Your task to perform on an android device: toggle wifi Image 0: 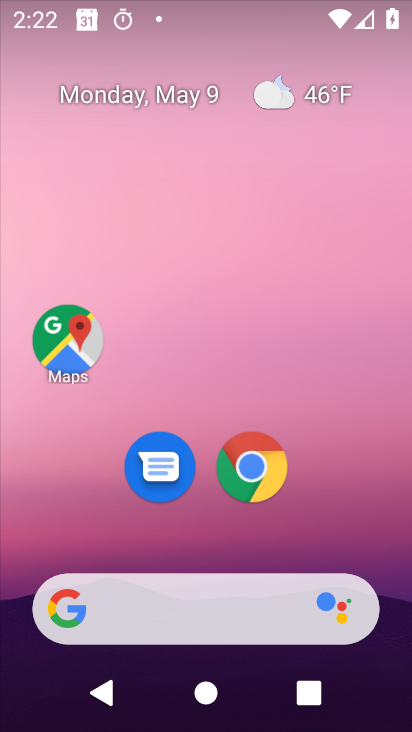
Step 0: drag from (346, 444) to (264, 84)
Your task to perform on an android device: toggle wifi Image 1: 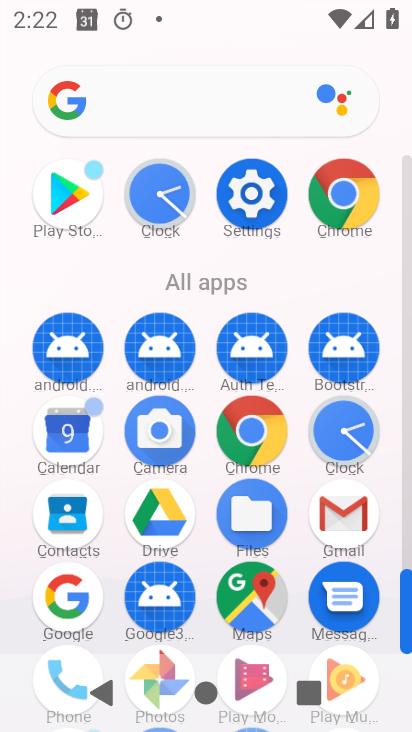
Step 1: click (256, 184)
Your task to perform on an android device: toggle wifi Image 2: 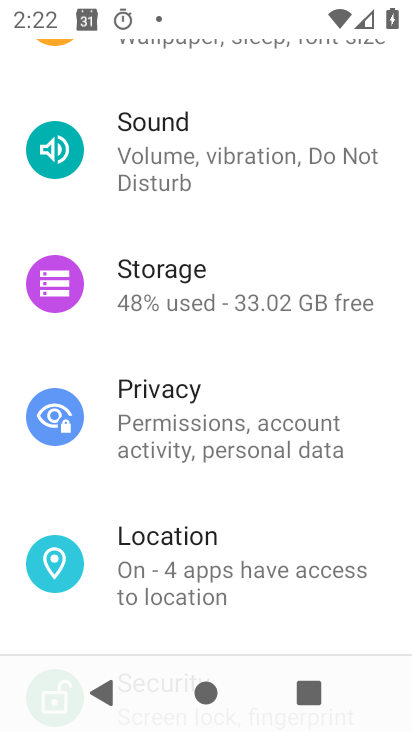
Step 2: drag from (250, 122) to (289, 554)
Your task to perform on an android device: toggle wifi Image 3: 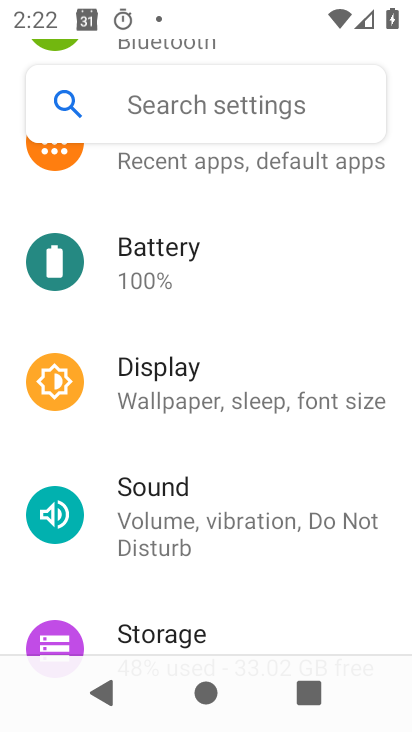
Step 3: drag from (242, 202) to (266, 634)
Your task to perform on an android device: toggle wifi Image 4: 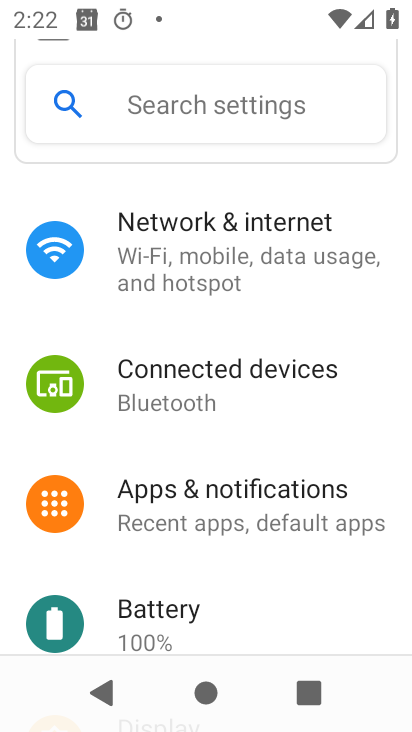
Step 4: click (244, 251)
Your task to perform on an android device: toggle wifi Image 5: 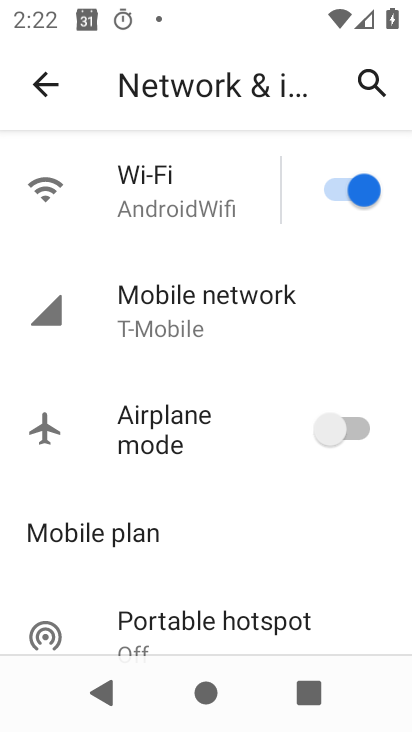
Step 5: click (347, 188)
Your task to perform on an android device: toggle wifi Image 6: 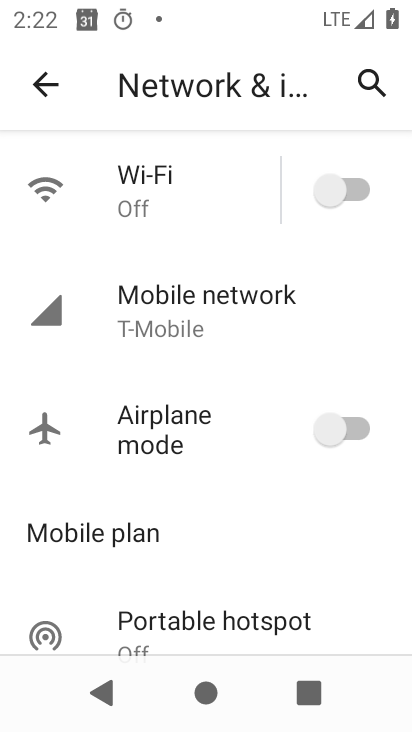
Step 6: task complete